Your task to perform on an android device: Open settings on Google Maps Image 0: 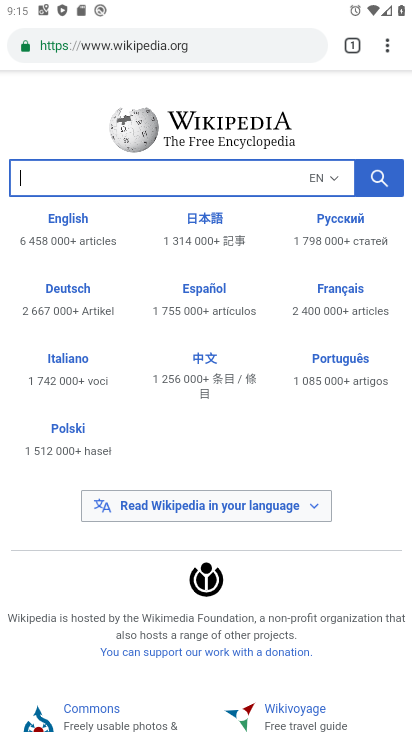
Step 0: press home button
Your task to perform on an android device: Open settings on Google Maps Image 1: 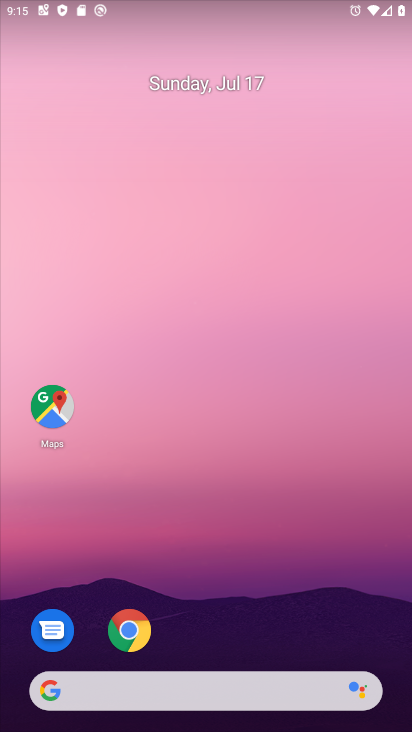
Step 1: drag from (321, 613) to (371, 137)
Your task to perform on an android device: Open settings on Google Maps Image 2: 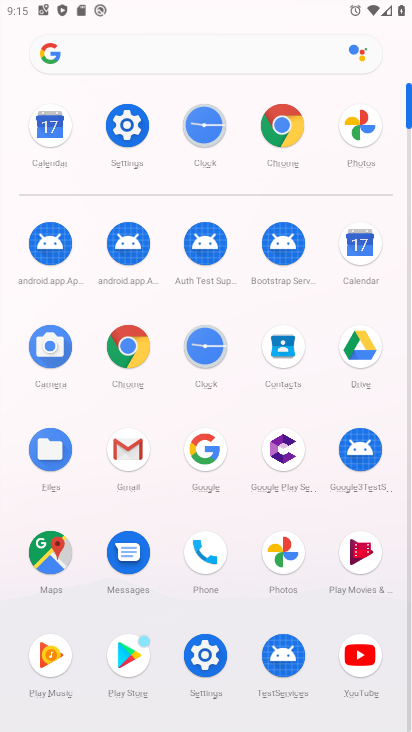
Step 2: click (53, 547)
Your task to perform on an android device: Open settings on Google Maps Image 3: 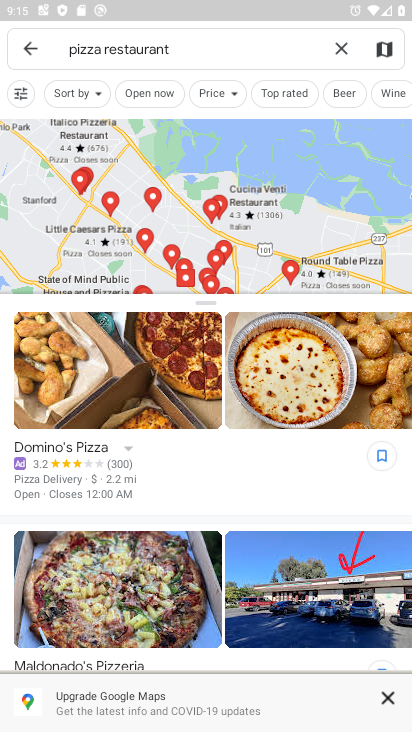
Step 3: press back button
Your task to perform on an android device: Open settings on Google Maps Image 4: 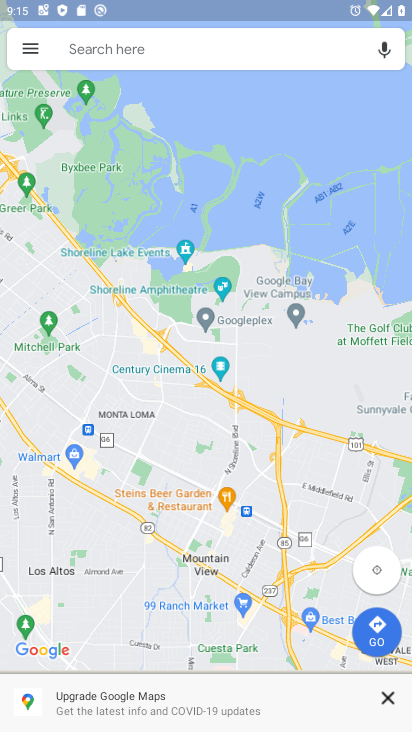
Step 4: click (29, 40)
Your task to perform on an android device: Open settings on Google Maps Image 5: 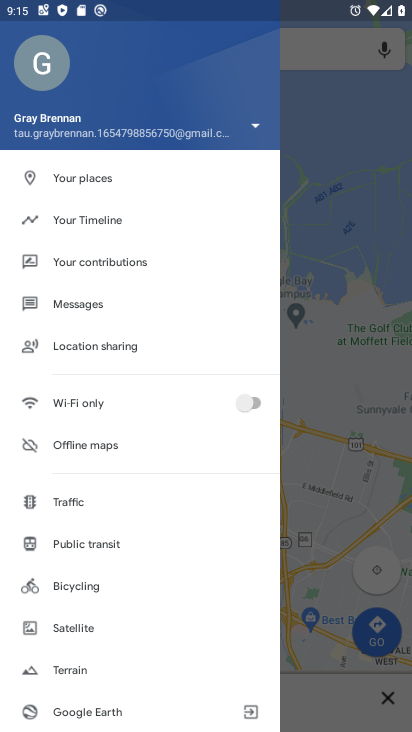
Step 5: drag from (174, 583) to (184, 513)
Your task to perform on an android device: Open settings on Google Maps Image 6: 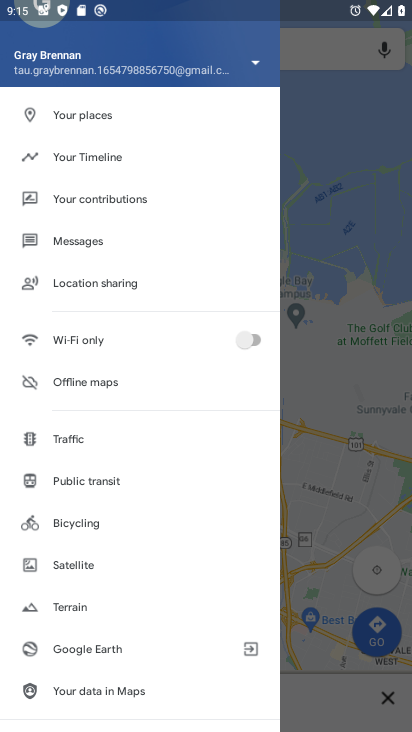
Step 6: drag from (187, 590) to (188, 492)
Your task to perform on an android device: Open settings on Google Maps Image 7: 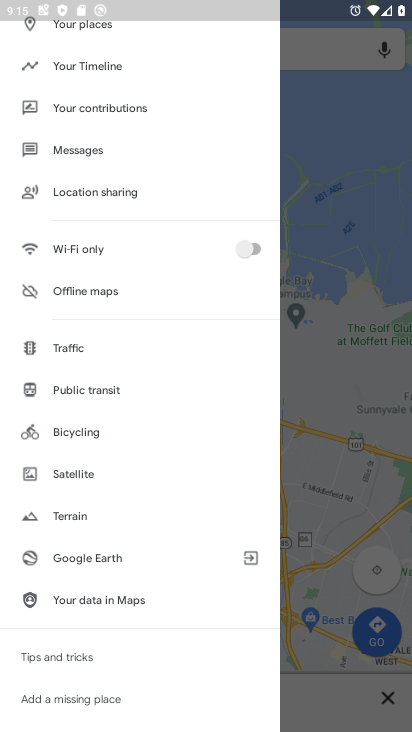
Step 7: drag from (188, 618) to (188, 511)
Your task to perform on an android device: Open settings on Google Maps Image 8: 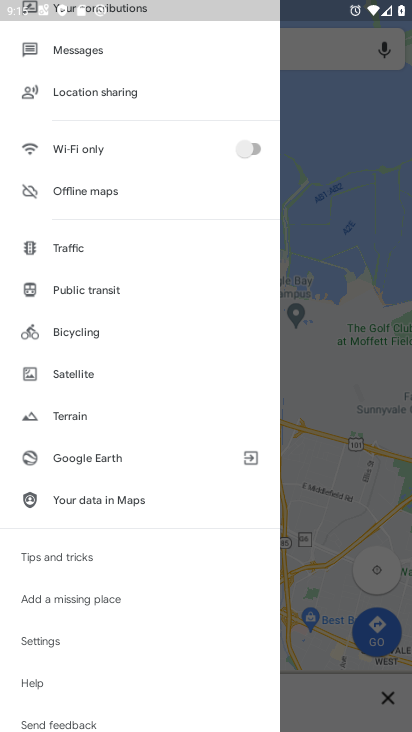
Step 8: drag from (167, 599) to (171, 475)
Your task to perform on an android device: Open settings on Google Maps Image 9: 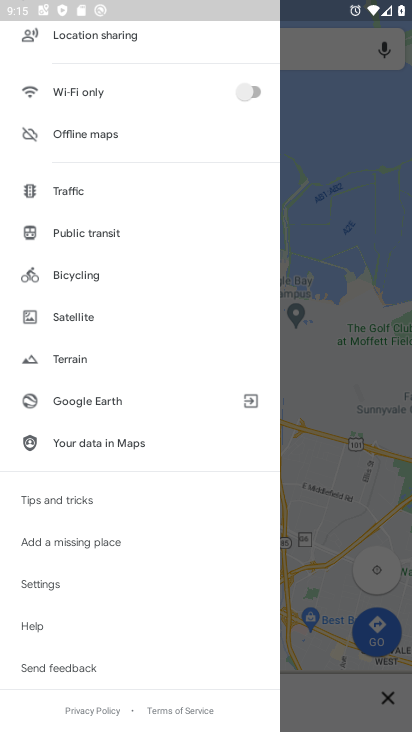
Step 9: click (122, 591)
Your task to perform on an android device: Open settings on Google Maps Image 10: 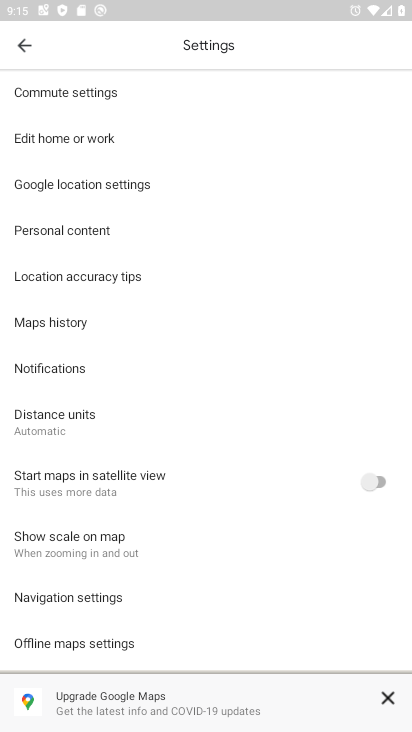
Step 10: task complete